Your task to perform on an android device: Turn off the flashlight Image 0: 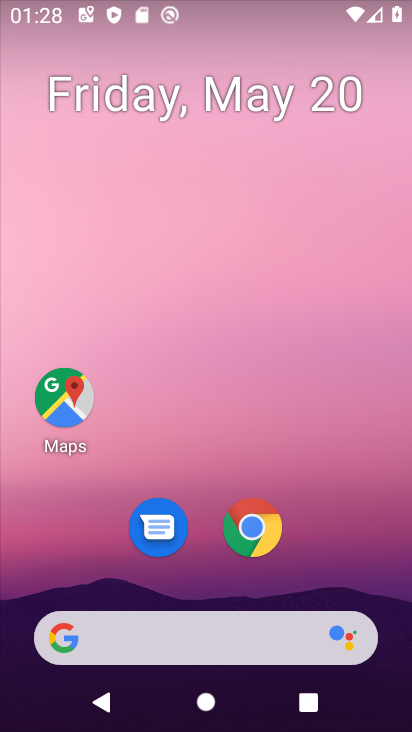
Step 0: press home button
Your task to perform on an android device: Turn off the flashlight Image 1: 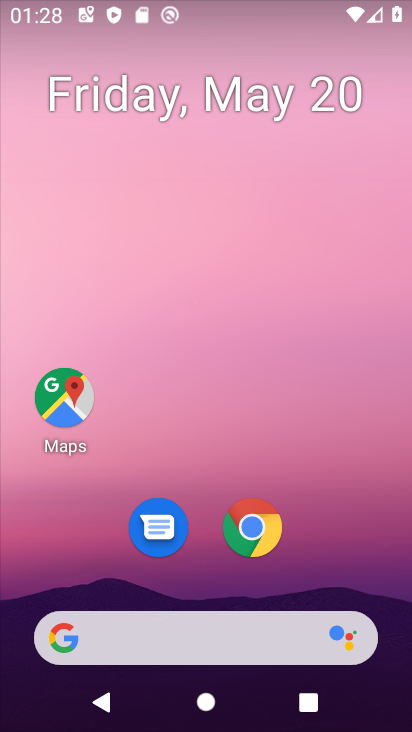
Step 1: task complete